Your task to perform on an android device: turn smart compose on in the gmail app Image 0: 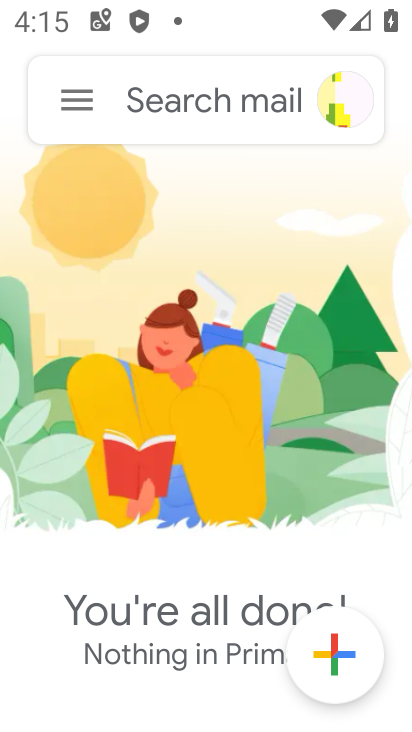
Step 0: press home button
Your task to perform on an android device: turn smart compose on in the gmail app Image 1: 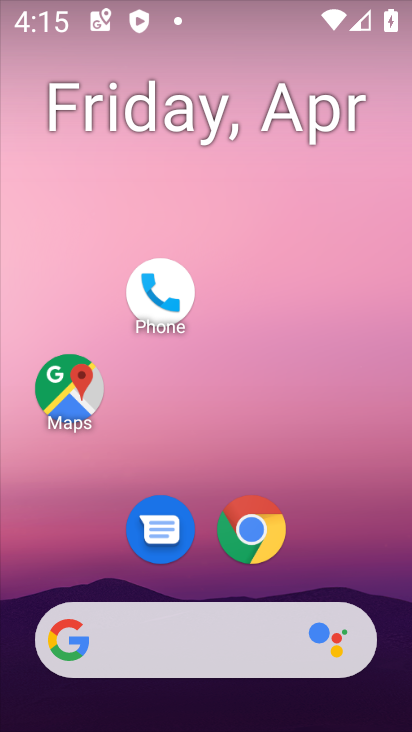
Step 1: drag from (203, 579) to (219, 47)
Your task to perform on an android device: turn smart compose on in the gmail app Image 2: 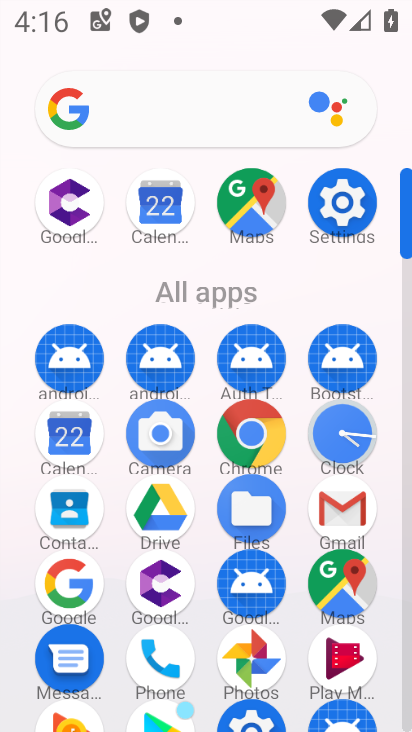
Step 2: click (344, 501)
Your task to perform on an android device: turn smart compose on in the gmail app Image 3: 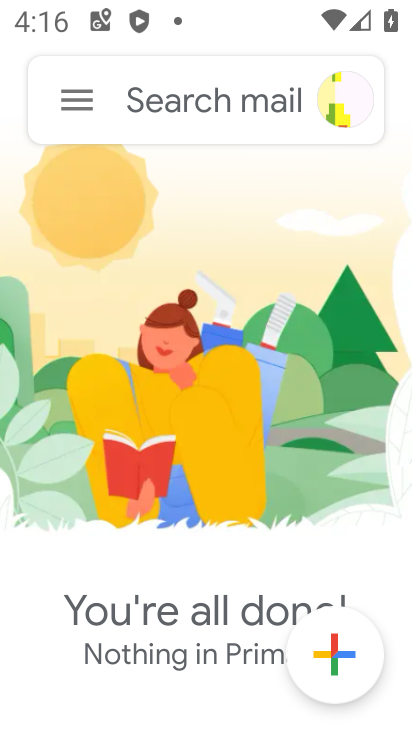
Step 3: click (73, 96)
Your task to perform on an android device: turn smart compose on in the gmail app Image 4: 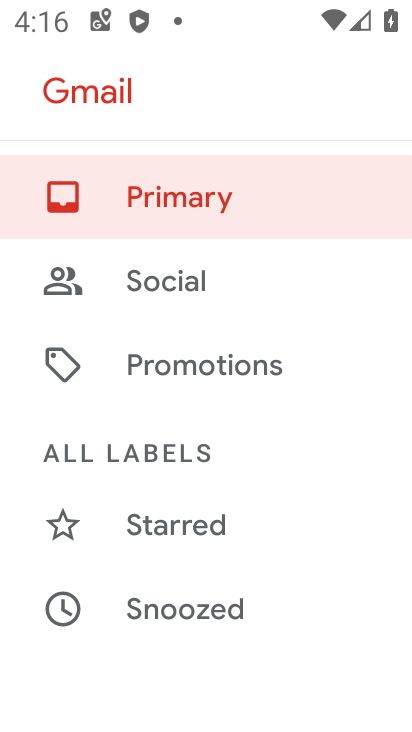
Step 4: drag from (97, 551) to (112, 170)
Your task to perform on an android device: turn smart compose on in the gmail app Image 5: 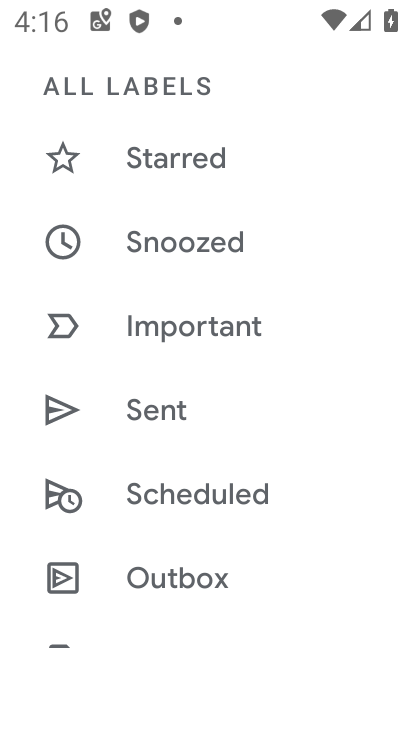
Step 5: drag from (133, 527) to (129, 119)
Your task to perform on an android device: turn smart compose on in the gmail app Image 6: 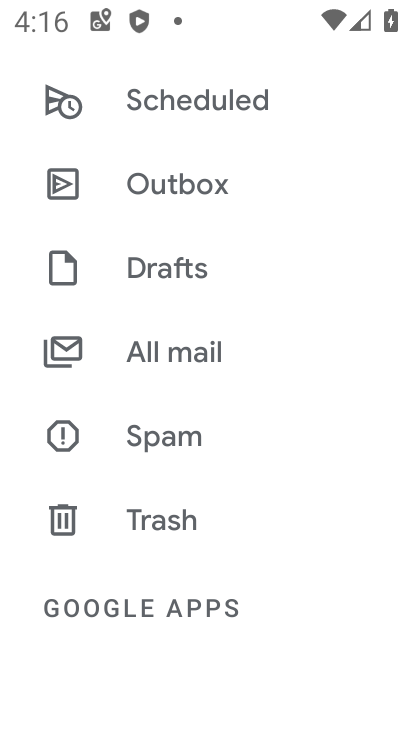
Step 6: drag from (112, 540) to (194, 71)
Your task to perform on an android device: turn smart compose on in the gmail app Image 7: 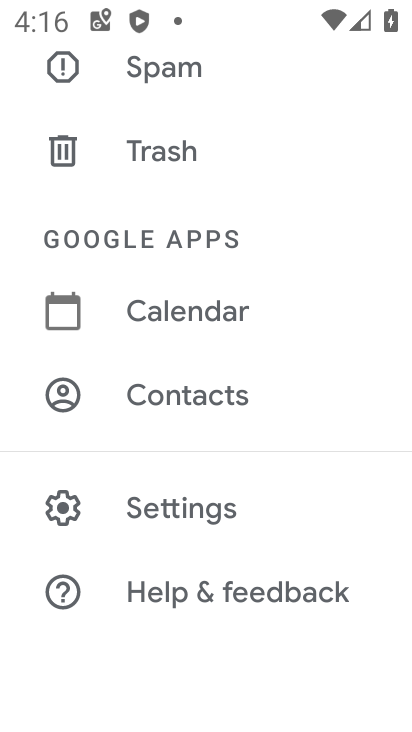
Step 7: click (135, 515)
Your task to perform on an android device: turn smart compose on in the gmail app Image 8: 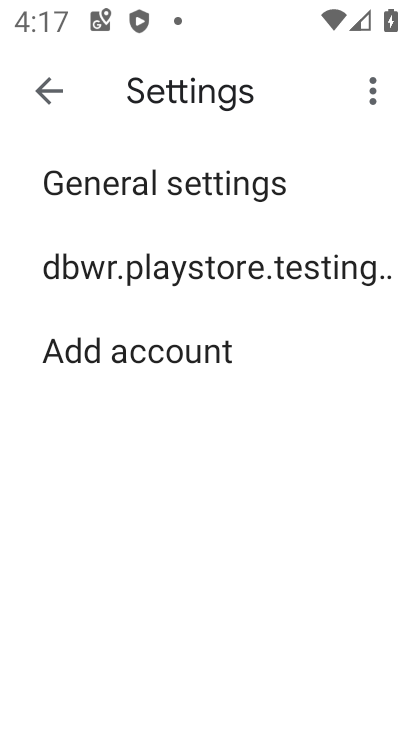
Step 8: click (116, 265)
Your task to perform on an android device: turn smart compose on in the gmail app Image 9: 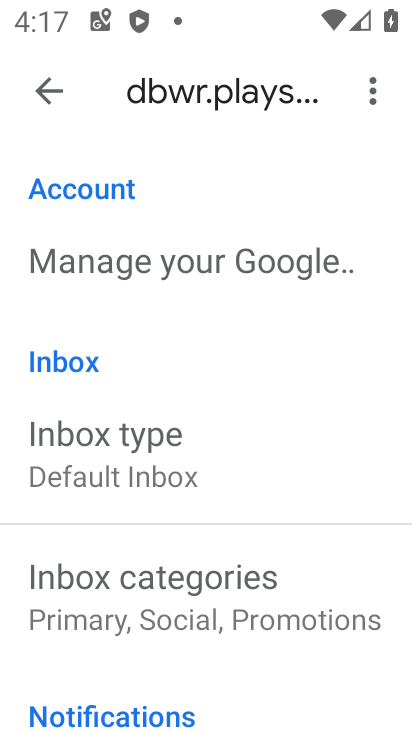
Step 9: task complete